Your task to perform on an android device: Do I have any events tomorrow? Image 0: 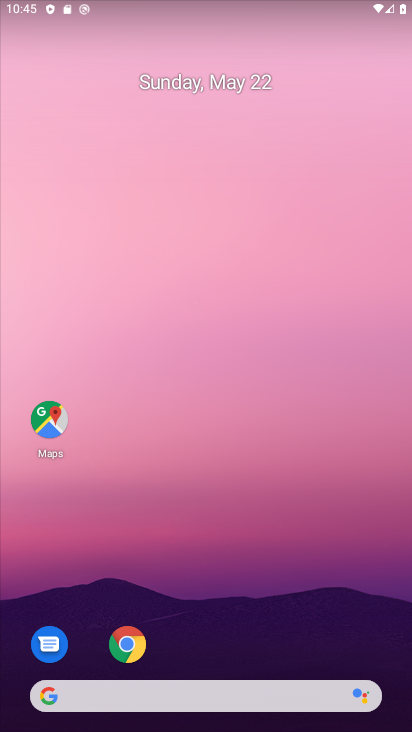
Step 0: drag from (281, 626) to (307, 83)
Your task to perform on an android device: Do I have any events tomorrow? Image 1: 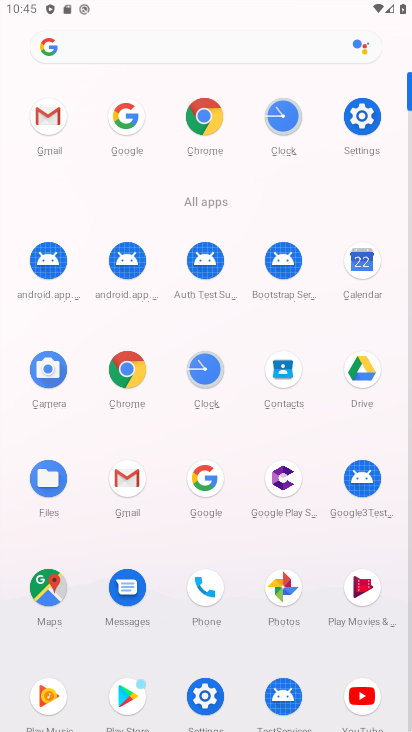
Step 1: click (365, 262)
Your task to perform on an android device: Do I have any events tomorrow? Image 2: 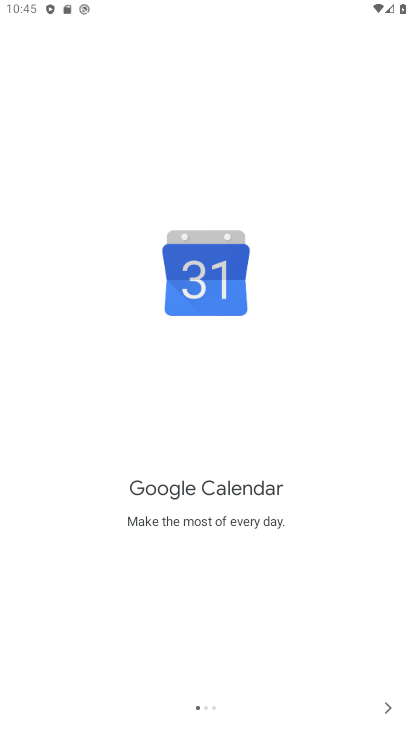
Step 2: click (387, 697)
Your task to perform on an android device: Do I have any events tomorrow? Image 3: 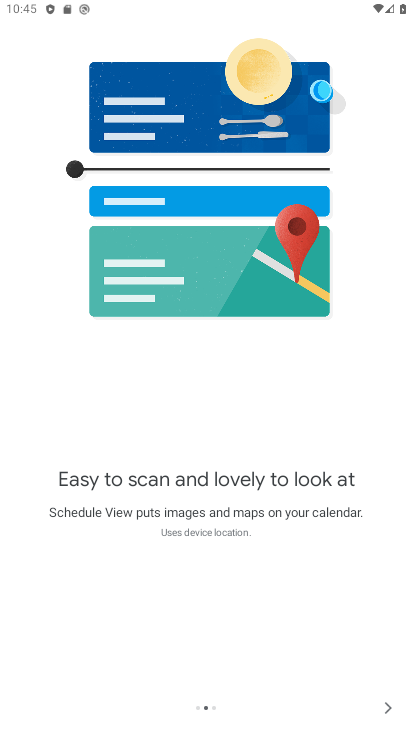
Step 3: click (388, 697)
Your task to perform on an android device: Do I have any events tomorrow? Image 4: 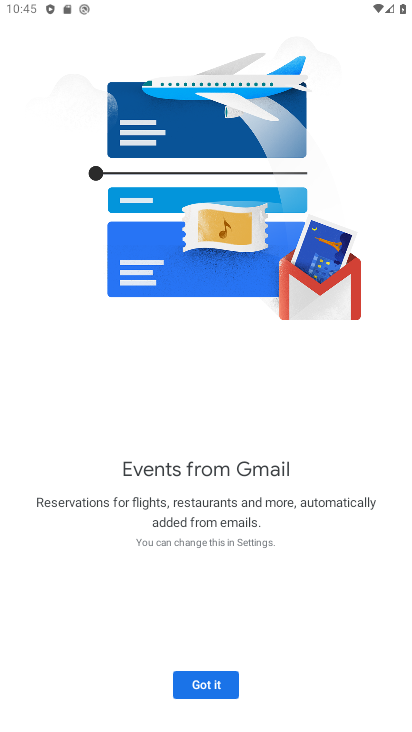
Step 4: click (222, 692)
Your task to perform on an android device: Do I have any events tomorrow? Image 5: 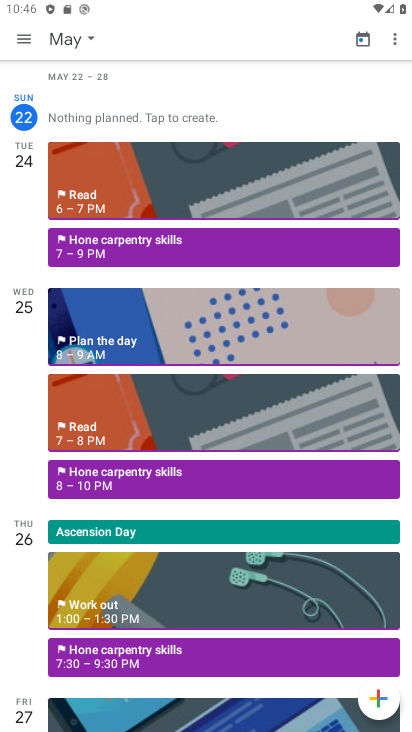
Step 5: click (59, 40)
Your task to perform on an android device: Do I have any events tomorrow? Image 6: 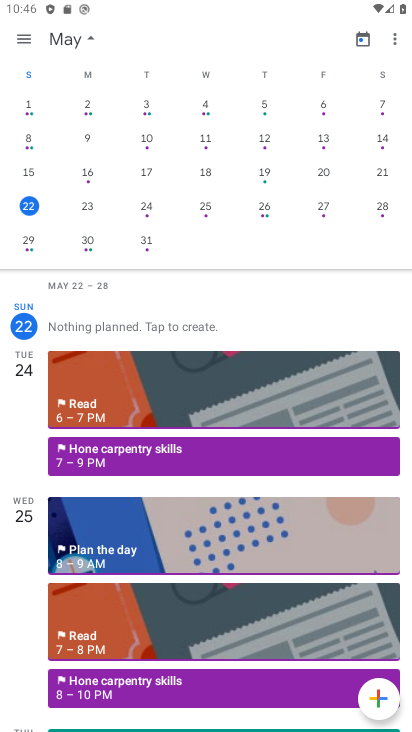
Step 6: click (143, 210)
Your task to perform on an android device: Do I have any events tomorrow? Image 7: 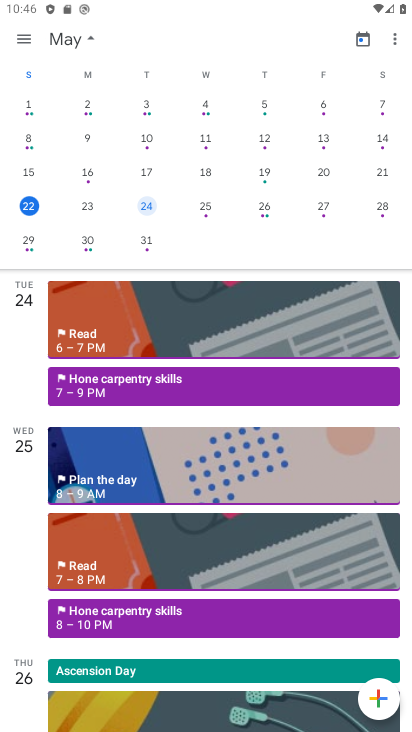
Step 7: click (210, 314)
Your task to perform on an android device: Do I have any events tomorrow? Image 8: 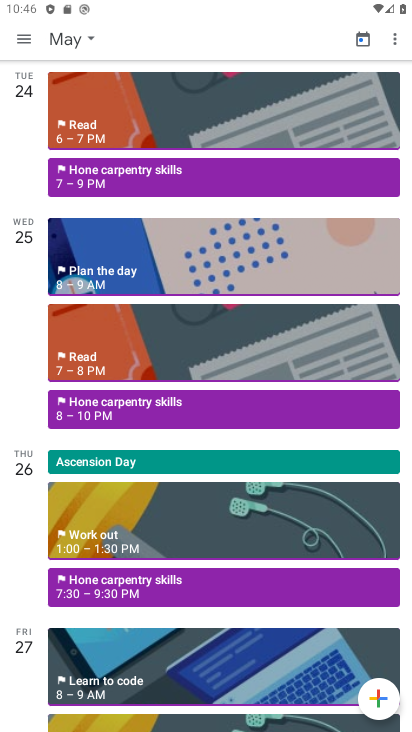
Step 8: task complete